Your task to perform on an android device: Find coffee shops on Maps Image 0: 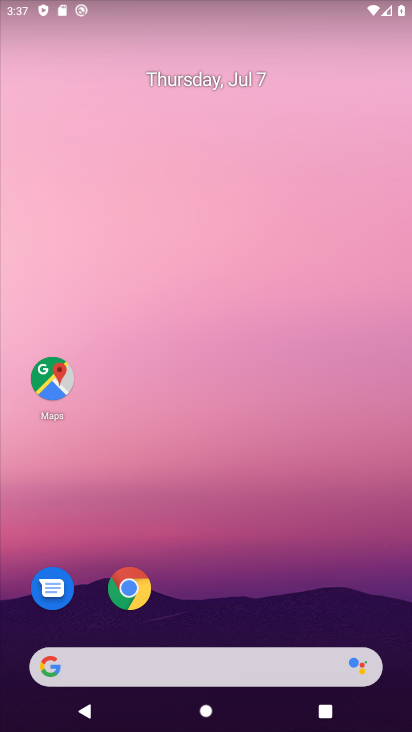
Step 0: drag from (232, 665) to (277, 41)
Your task to perform on an android device: Find coffee shops on Maps Image 1: 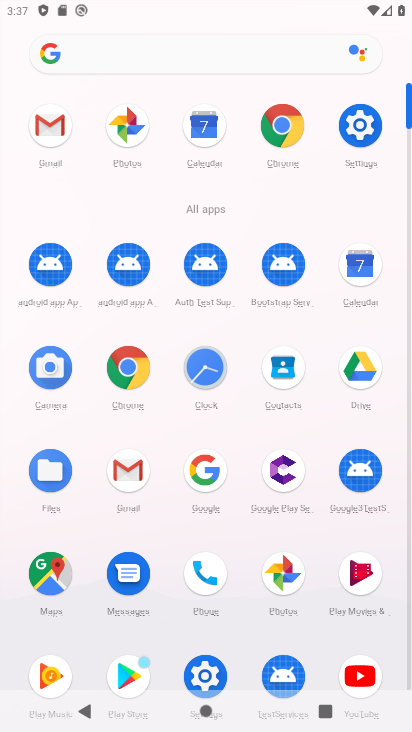
Step 1: click (38, 575)
Your task to perform on an android device: Find coffee shops on Maps Image 2: 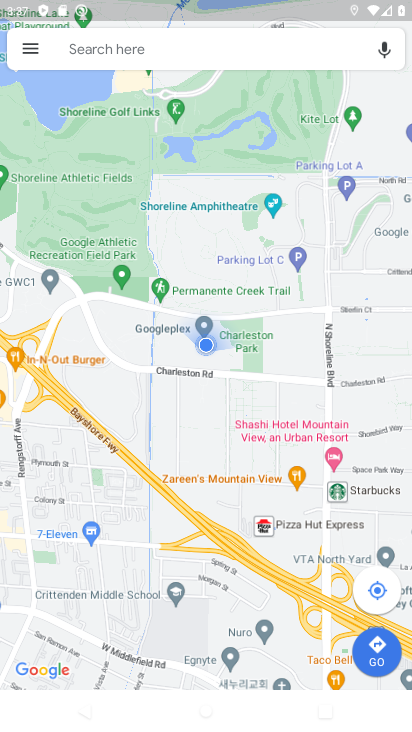
Step 2: click (155, 46)
Your task to perform on an android device: Find coffee shops on Maps Image 3: 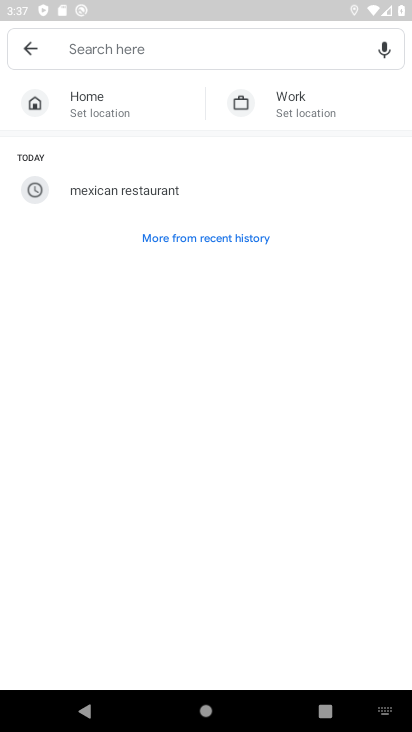
Step 3: type "coffee shops"
Your task to perform on an android device: Find coffee shops on Maps Image 4: 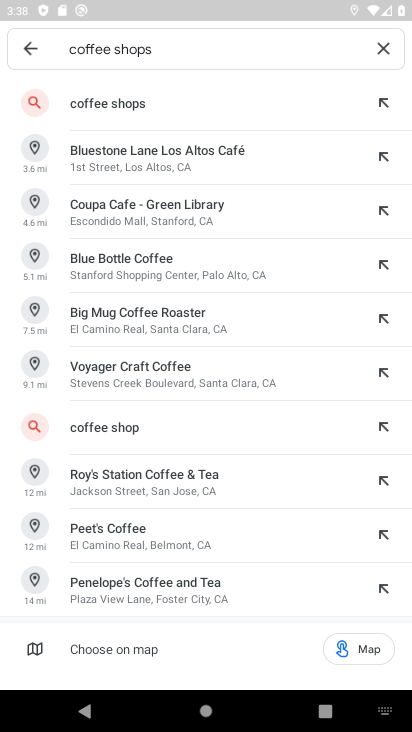
Step 4: click (147, 118)
Your task to perform on an android device: Find coffee shops on Maps Image 5: 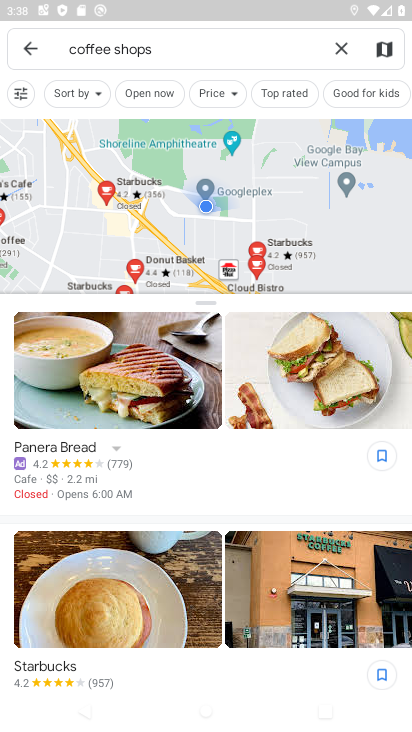
Step 5: task complete